Your task to perform on an android device: See recent photos Image 0: 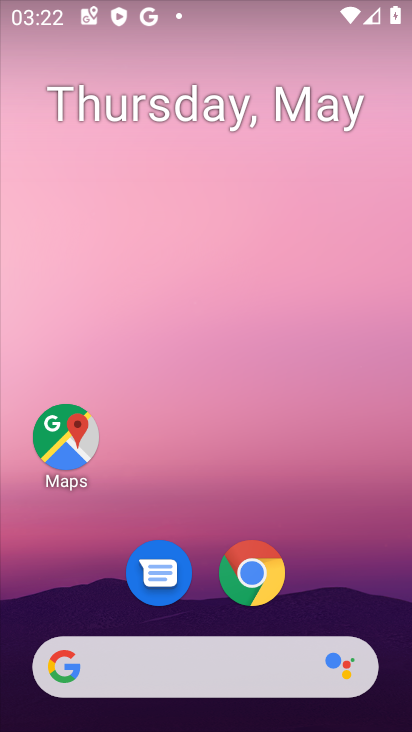
Step 0: drag from (334, 612) to (340, 296)
Your task to perform on an android device: See recent photos Image 1: 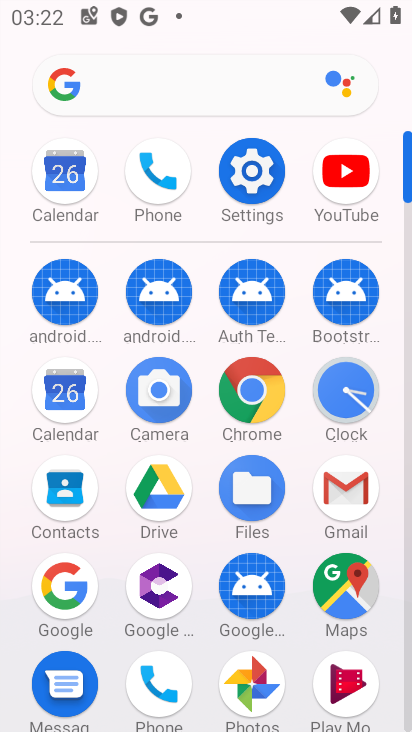
Step 1: click (254, 679)
Your task to perform on an android device: See recent photos Image 2: 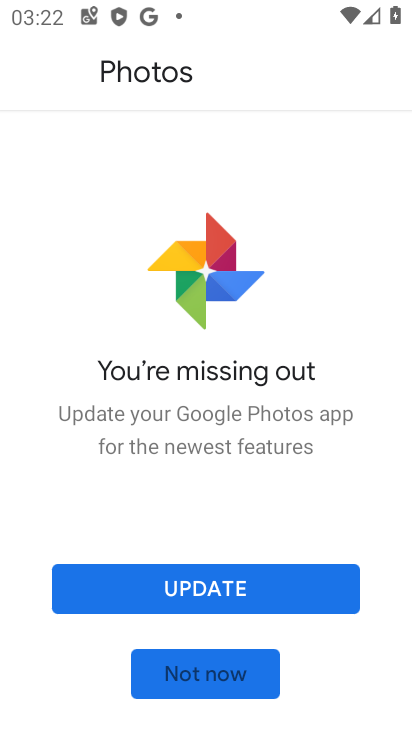
Step 2: click (210, 688)
Your task to perform on an android device: See recent photos Image 3: 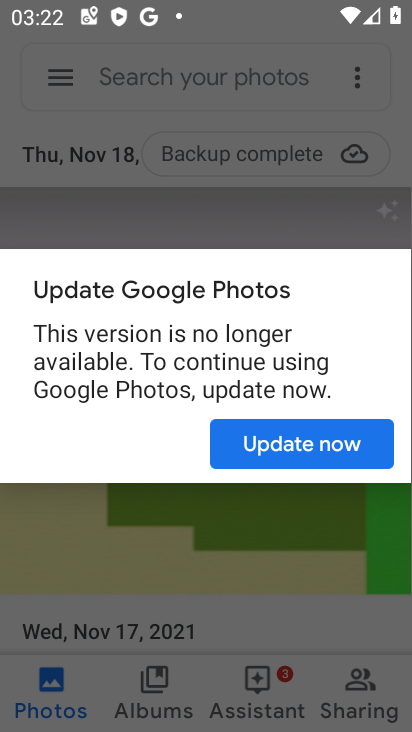
Step 3: click (299, 442)
Your task to perform on an android device: See recent photos Image 4: 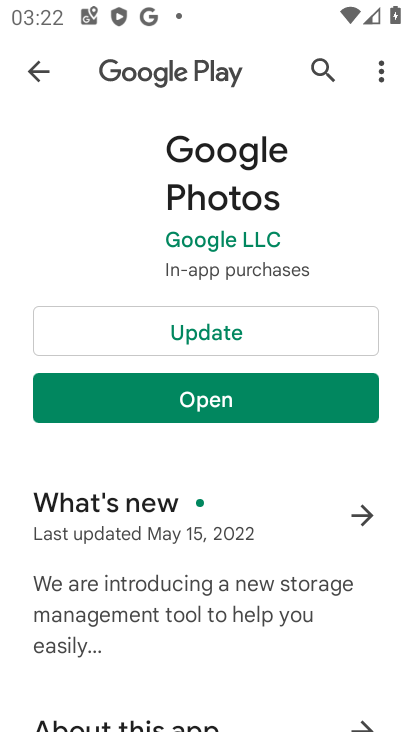
Step 4: task complete